Your task to perform on an android device: change your default location settings in chrome Image 0: 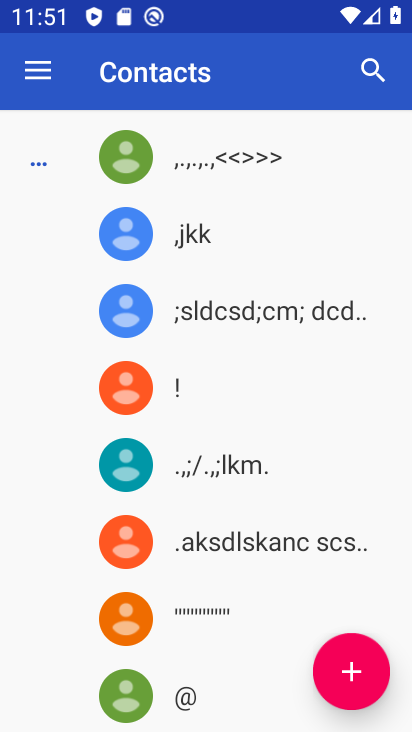
Step 0: press home button
Your task to perform on an android device: change your default location settings in chrome Image 1: 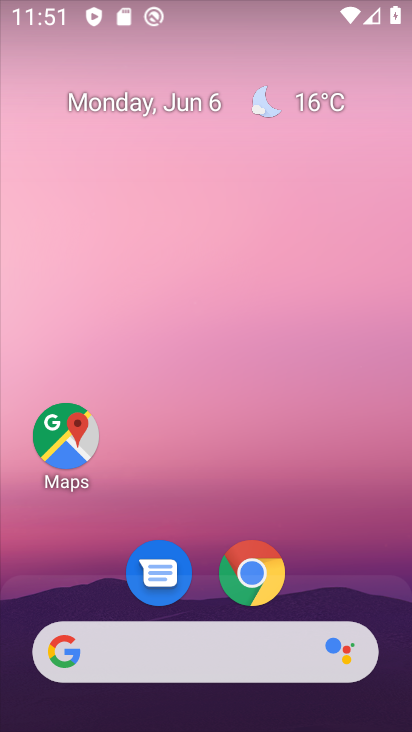
Step 1: drag from (204, 680) to (197, 128)
Your task to perform on an android device: change your default location settings in chrome Image 2: 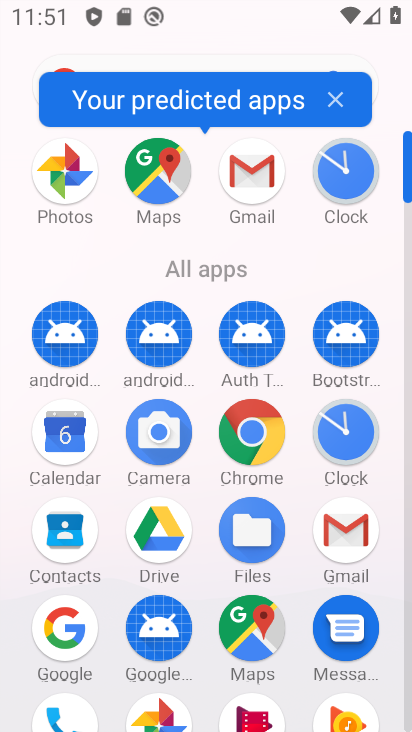
Step 2: click (269, 429)
Your task to perform on an android device: change your default location settings in chrome Image 3: 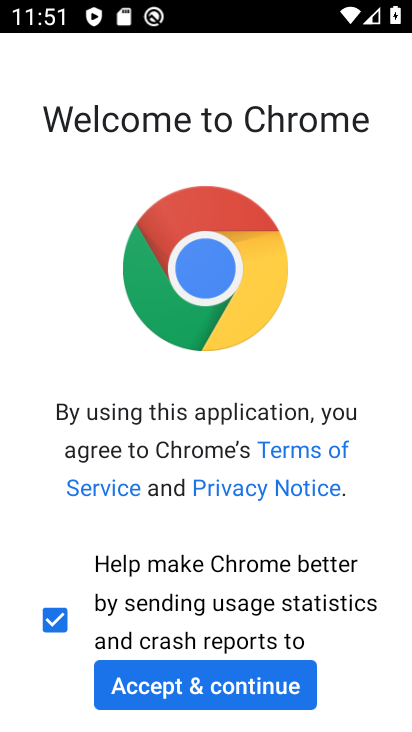
Step 3: click (263, 667)
Your task to perform on an android device: change your default location settings in chrome Image 4: 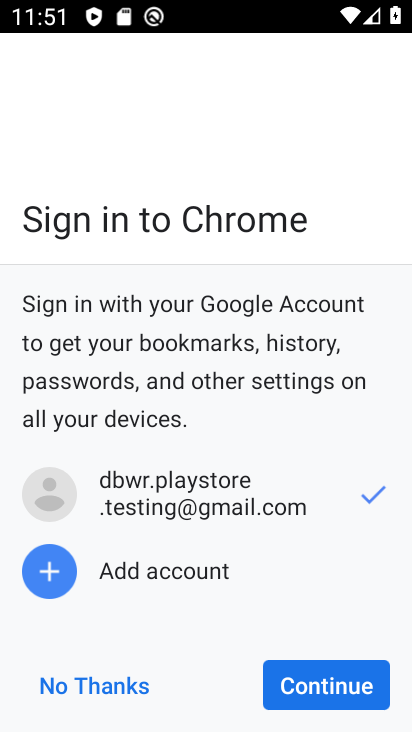
Step 4: click (334, 694)
Your task to perform on an android device: change your default location settings in chrome Image 5: 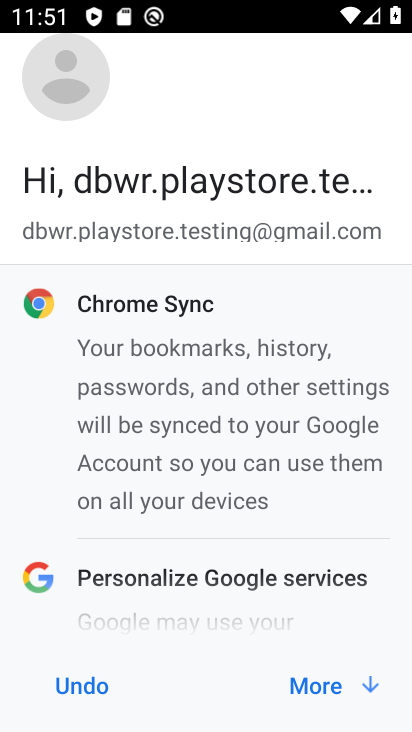
Step 5: click (346, 690)
Your task to perform on an android device: change your default location settings in chrome Image 6: 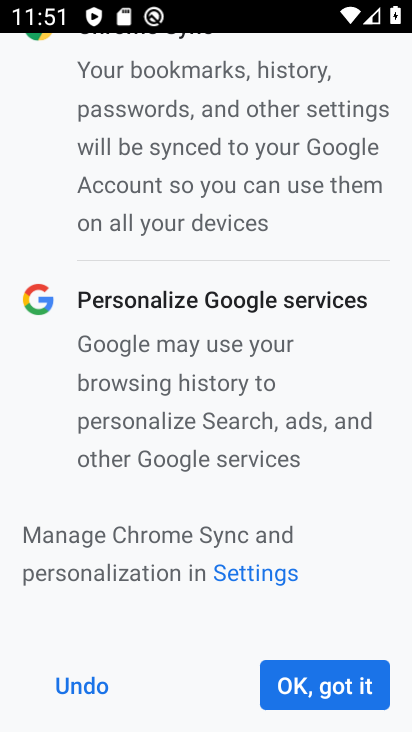
Step 6: click (352, 690)
Your task to perform on an android device: change your default location settings in chrome Image 7: 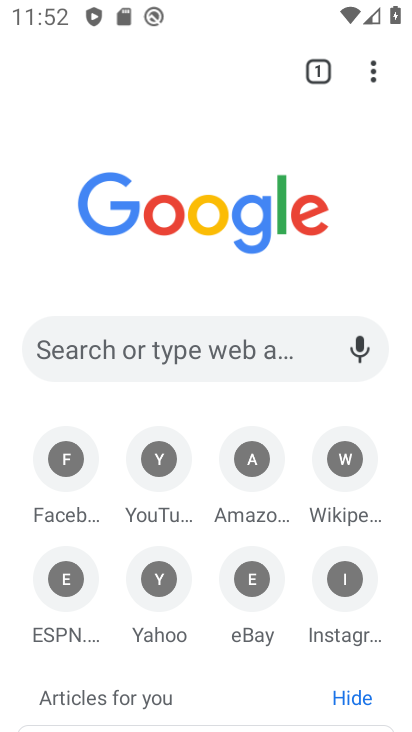
Step 7: click (380, 71)
Your task to perform on an android device: change your default location settings in chrome Image 8: 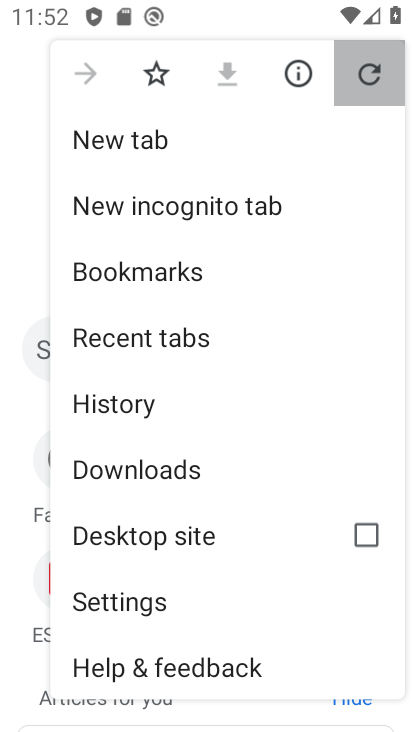
Step 8: click (380, 71)
Your task to perform on an android device: change your default location settings in chrome Image 9: 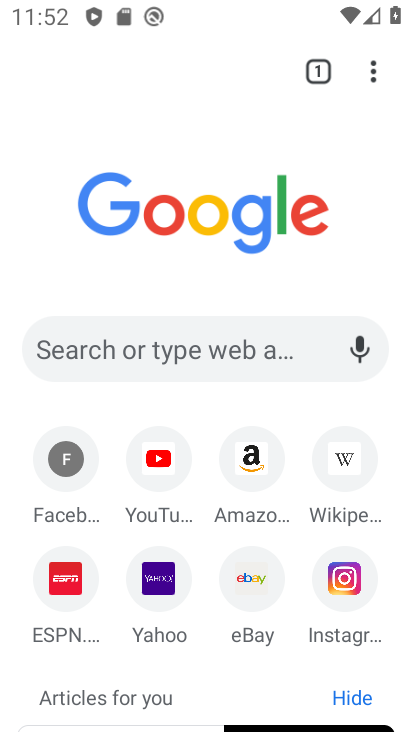
Step 9: drag from (380, 71) to (192, 586)
Your task to perform on an android device: change your default location settings in chrome Image 10: 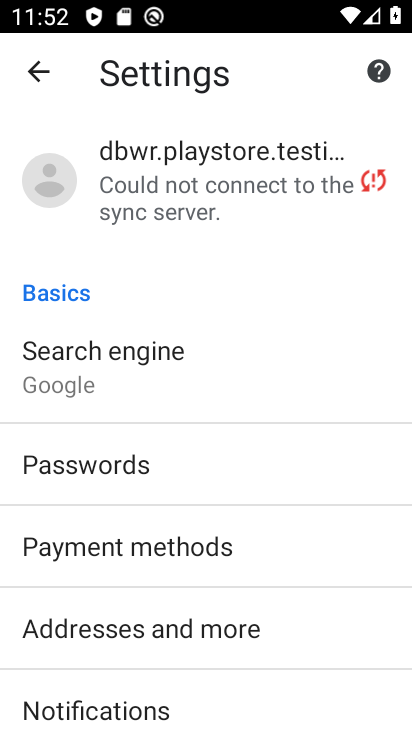
Step 10: drag from (151, 596) to (125, 108)
Your task to perform on an android device: change your default location settings in chrome Image 11: 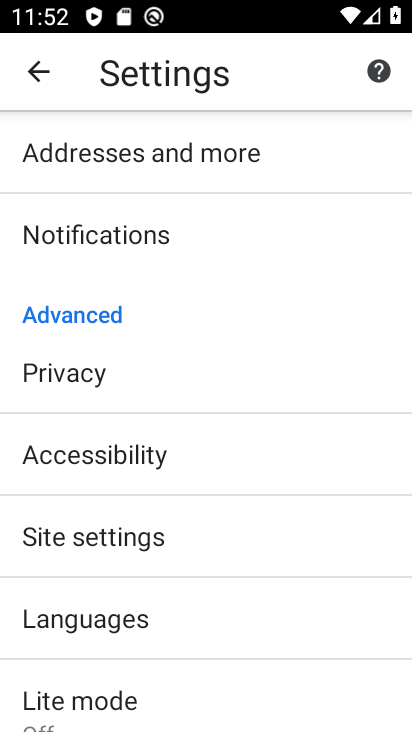
Step 11: click (149, 543)
Your task to perform on an android device: change your default location settings in chrome Image 12: 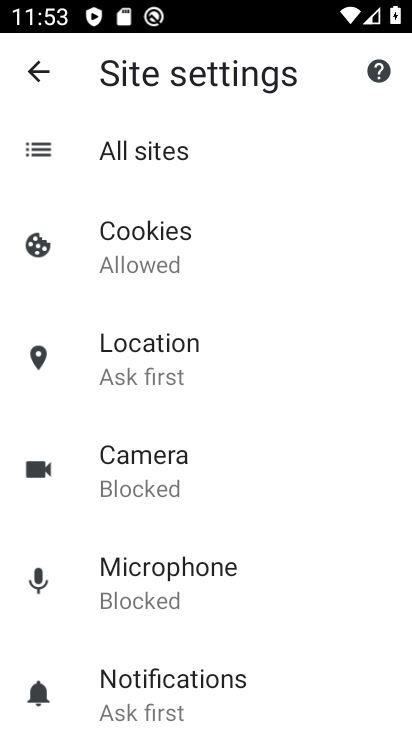
Step 12: drag from (160, 512) to (161, 462)
Your task to perform on an android device: change your default location settings in chrome Image 13: 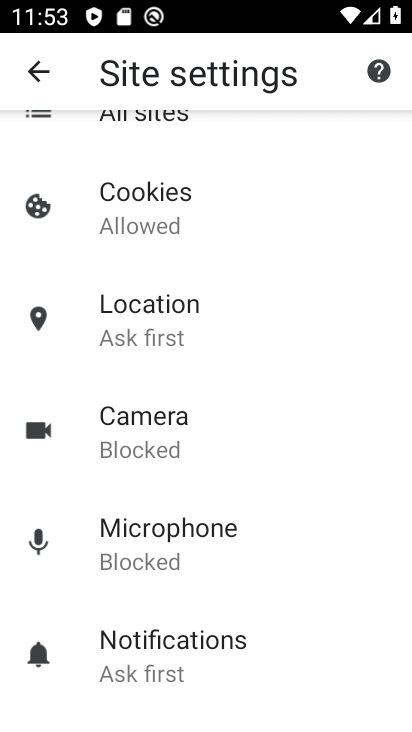
Step 13: click (153, 341)
Your task to perform on an android device: change your default location settings in chrome Image 14: 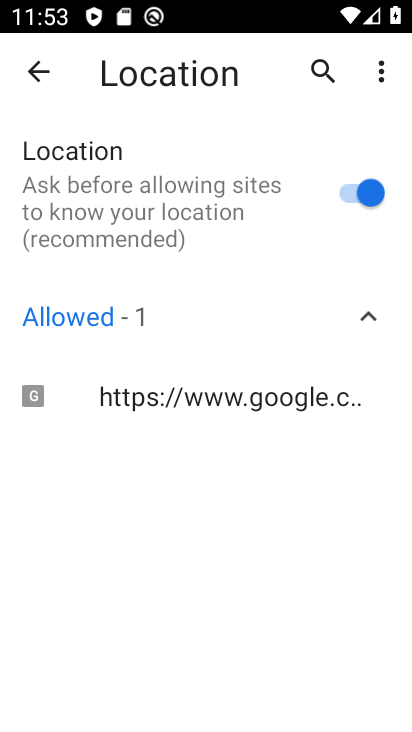
Step 14: click (345, 202)
Your task to perform on an android device: change your default location settings in chrome Image 15: 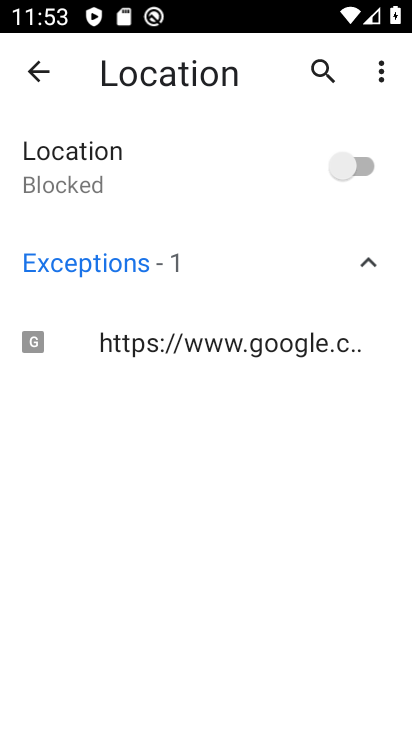
Step 15: task complete